Your task to perform on an android device: change the clock style Image 0: 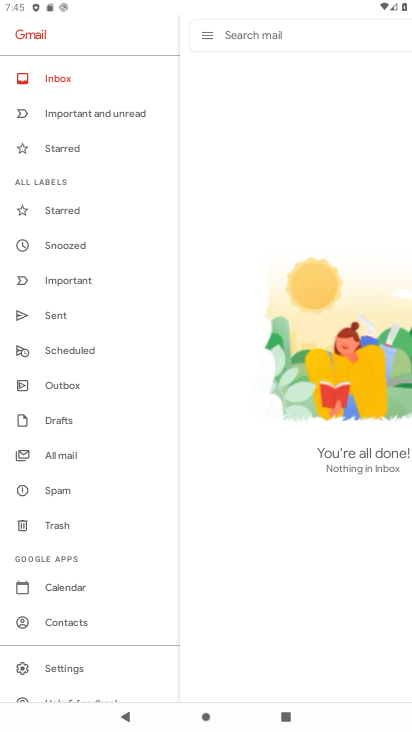
Step 0: press home button
Your task to perform on an android device: change the clock style Image 1: 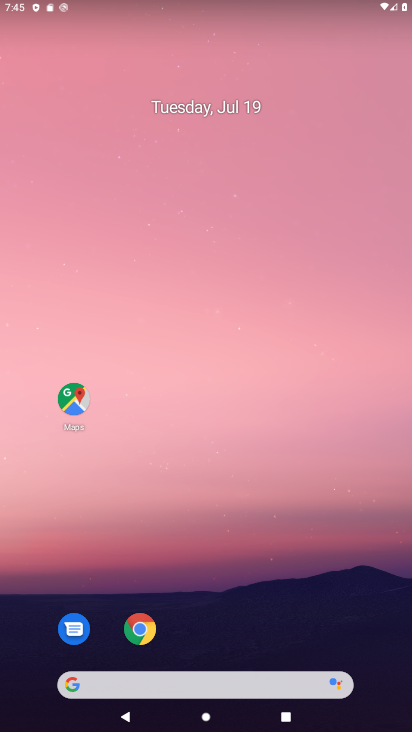
Step 1: drag from (228, 644) to (228, 84)
Your task to perform on an android device: change the clock style Image 2: 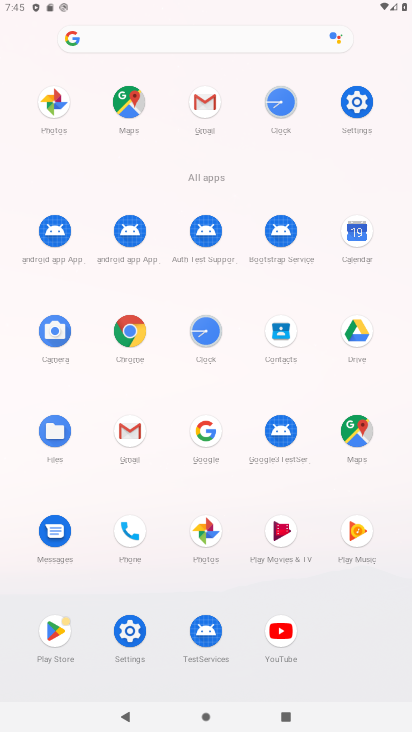
Step 2: click (215, 335)
Your task to perform on an android device: change the clock style Image 3: 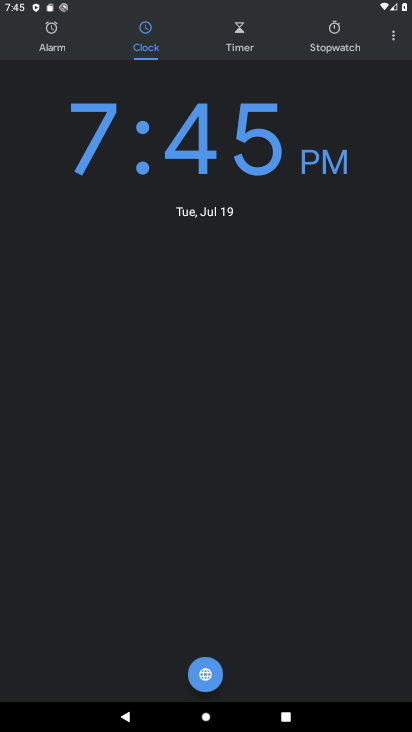
Step 3: click (396, 43)
Your task to perform on an android device: change the clock style Image 4: 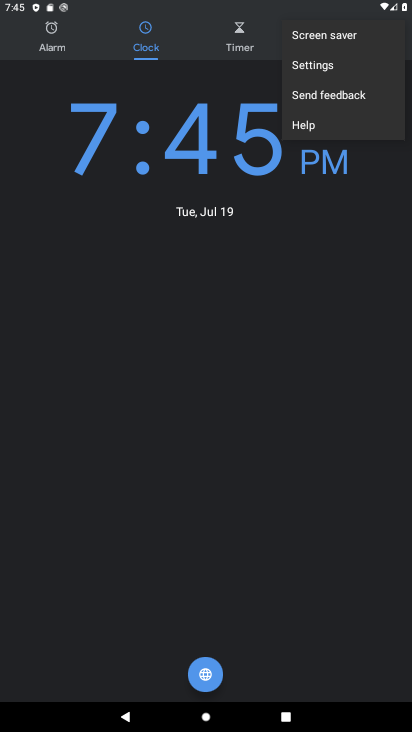
Step 4: click (315, 65)
Your task to perform on an android device: change the clock style Image 5: 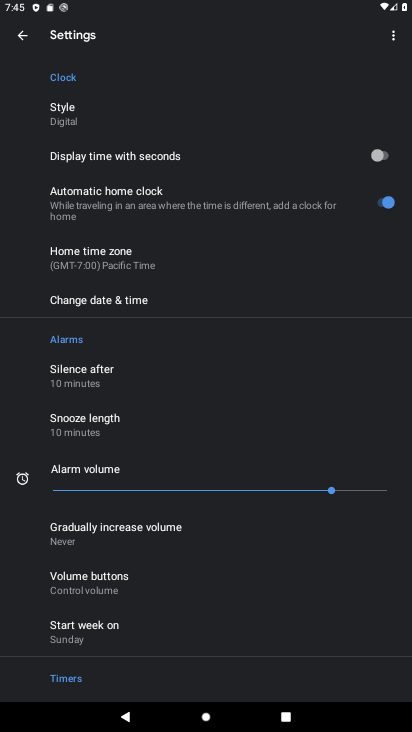
Step 5: click (73, 119)
Your task to perform on an android device: change the clock style Image 6: 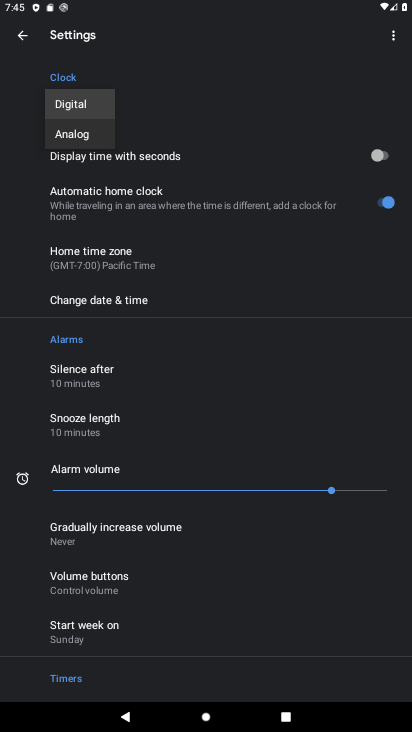
Step 6: click (77, 131)
Your task to perform on an android device: change the clock style Image 7: 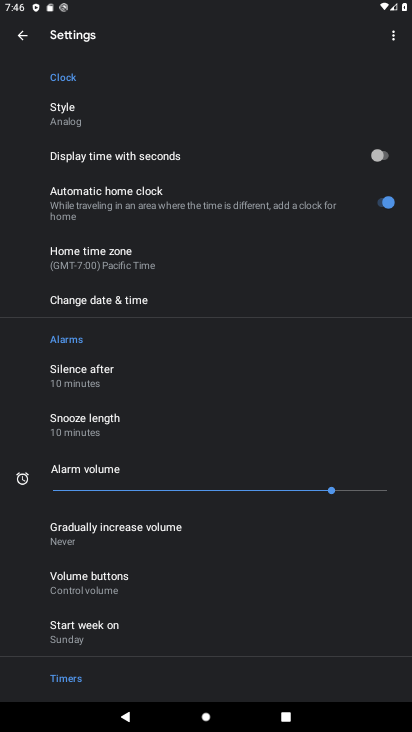
Step 7: task complete